Your task to perform on an android device: Go to network settings Image 0: 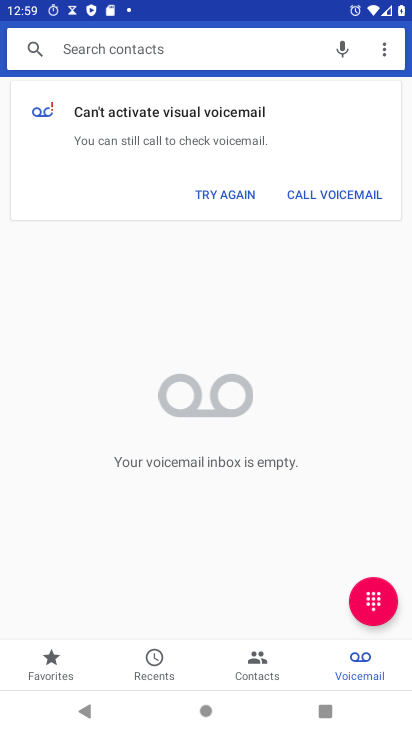
Step 0: press home button
Your task to perform on an android device: Go to network settings Image 1: 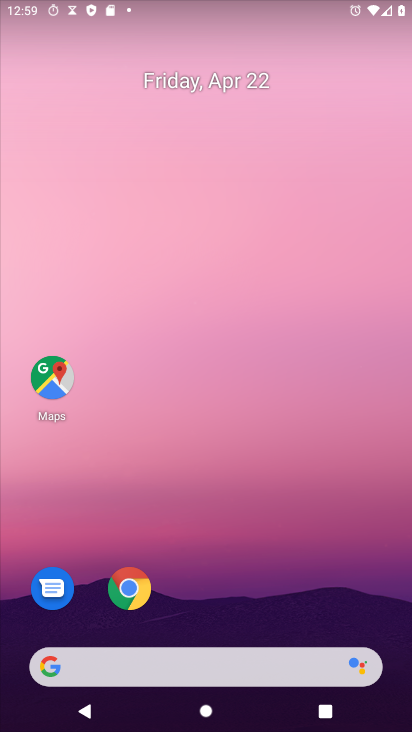
Step 1: drag from (229, 688) to (317, 184)
Your task to perform on an android device: Go to network settings Image 2: 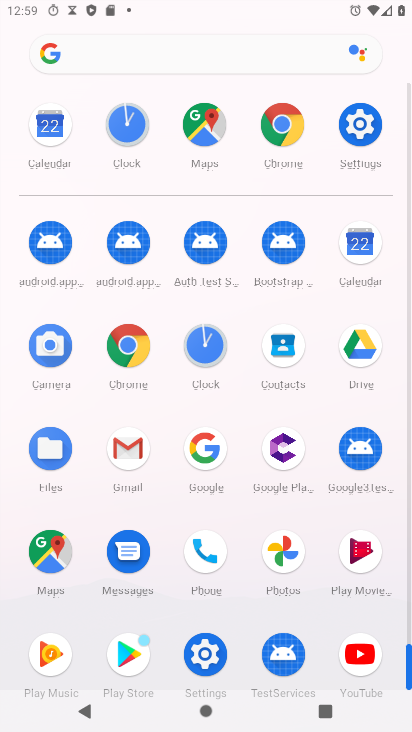
Step 2: click (358, 126)
Your task to perform on an android device: Go to network settings Image 3: 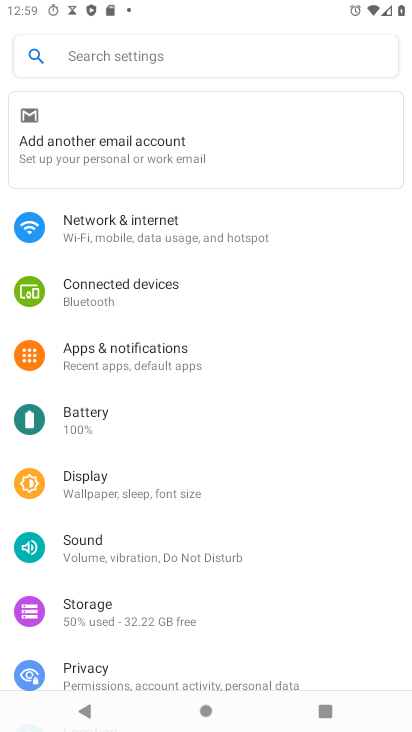
Step 3: click (119, 231)
Your task to perform on an android device: Go to network settings Image 4: 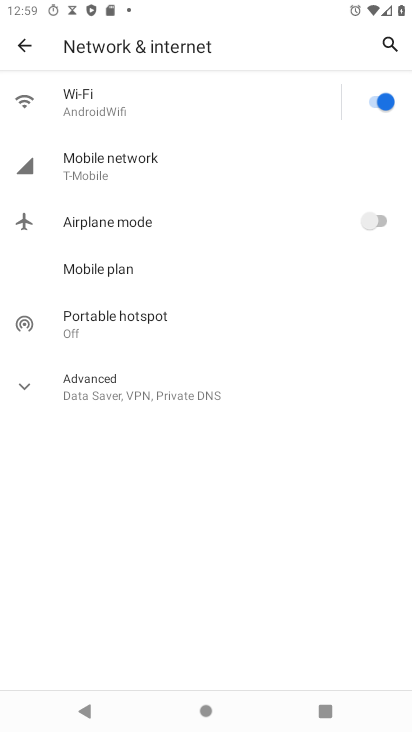
Step 4: click (141, 160)
Your task to perform on an android device: Go to network settings Image 5: 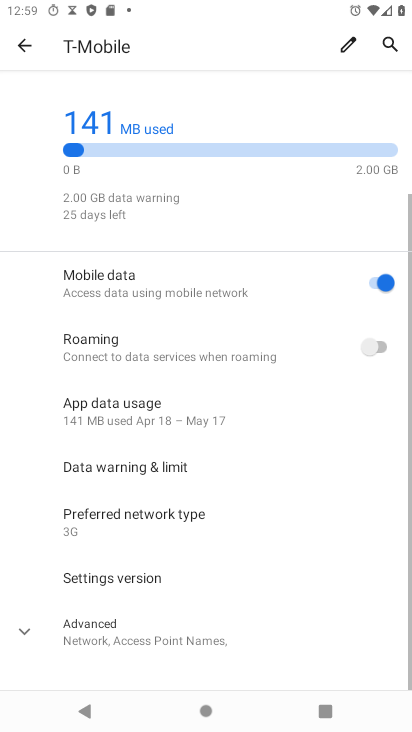
Step 5: task complete